Your task to perform on an android device: turn off picture-in-picture Image 0: 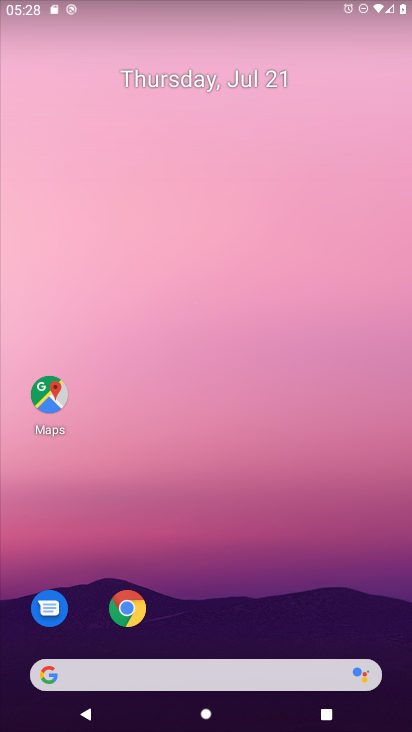
Step 0: drag from (321, 553) to (366, 159)
Your task to perform on an android device: turn off picture-in-picture Image 1: 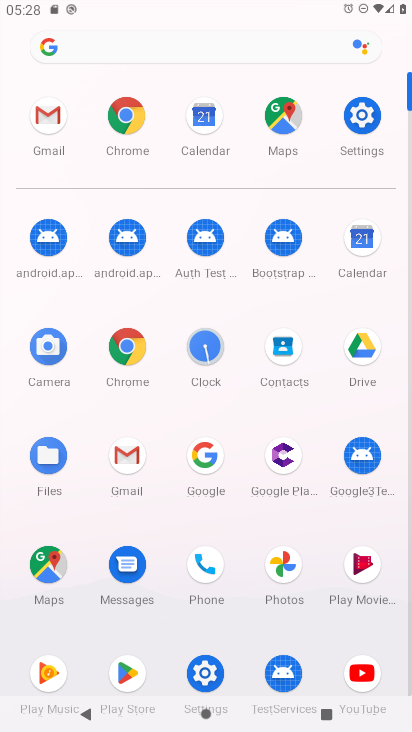
Step 1: click (370, 110)
Your task to perform on an android device: turn off picture-in-picture Image 2: 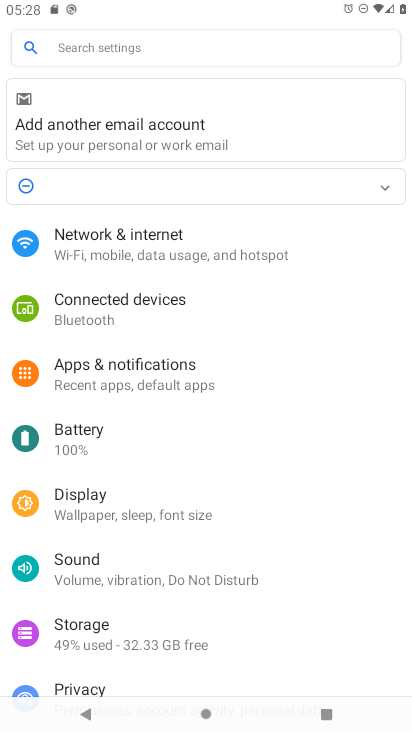
Step 2: click (187, 380)
Your task to perform on an android device: turn off picture-in-picture Image 3: 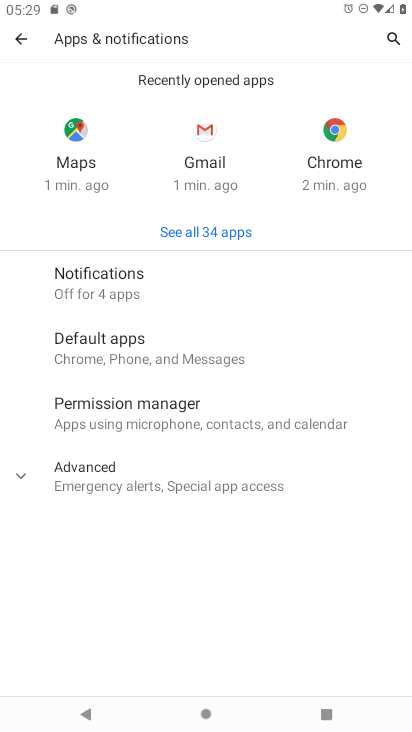
Step 3: click (155, 482)
Your task to perform on an android device: turn off picture-in-picture Image 4: 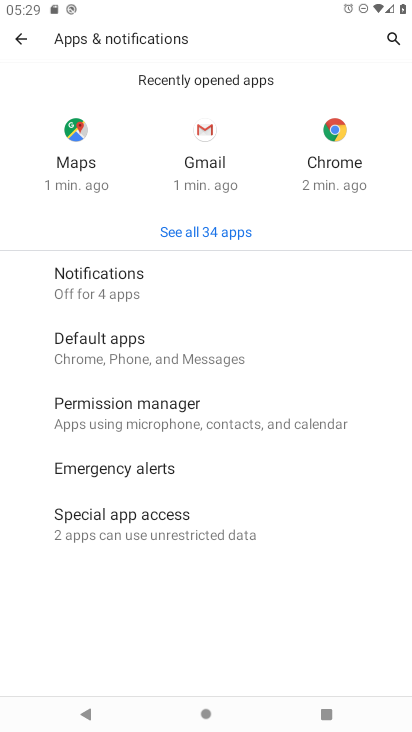
Step 4: click (159, 535)
Your task to perform on an android device: turn off picture-in-picture Image 5: 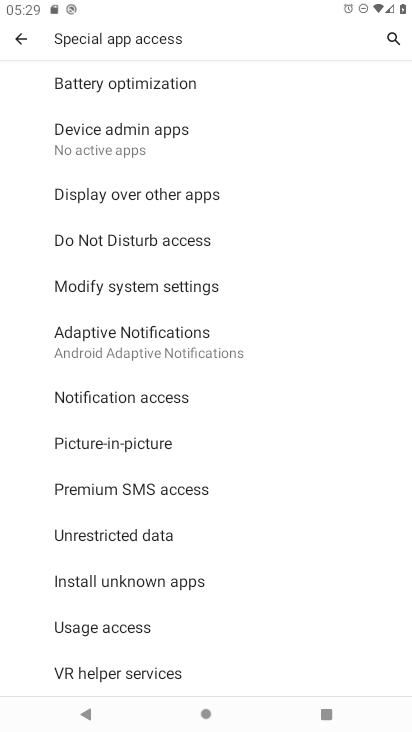
Step 5: click (153, 453)
Your task to perform on an android device: turn off picture-in-picture Image 6: 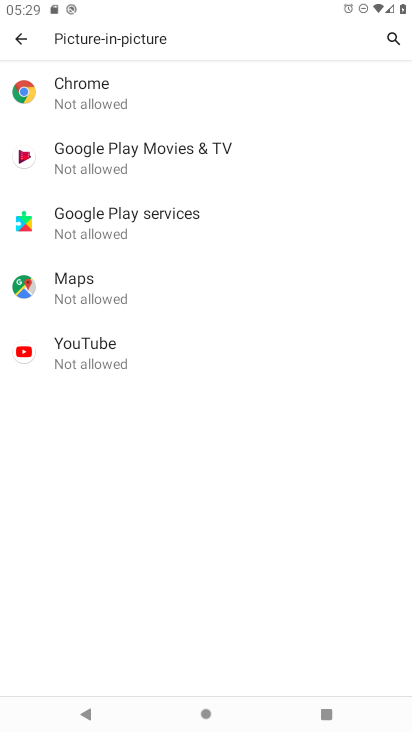
Step 6: task complete